Your task to perform on an android device: read, delete, or share a saved page in the chrome app Image 0: 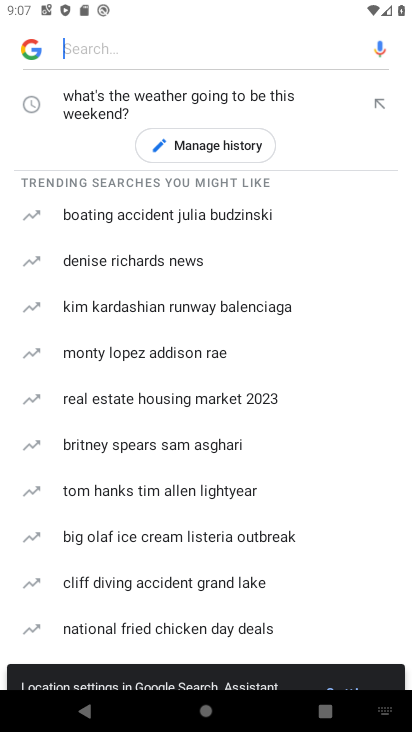
Step 0: press home button
Your task to perform on an android device: read, delete, or share a saved page in the chrome app Image 1: 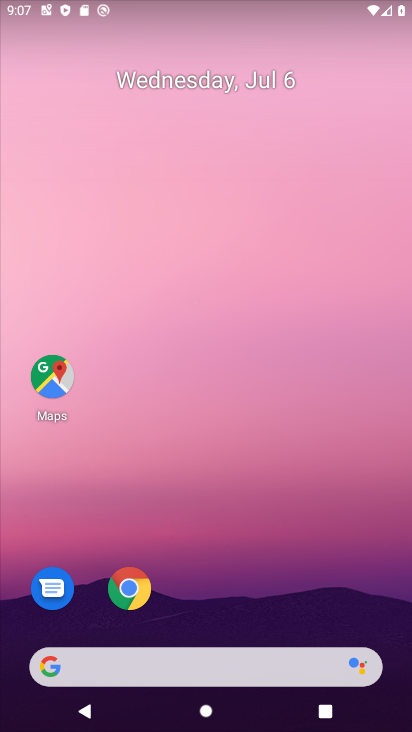
Step 1: click (133, 589)
Your task to perform on an android device: read, delete, or share a saved page in the chrome app Image 2: 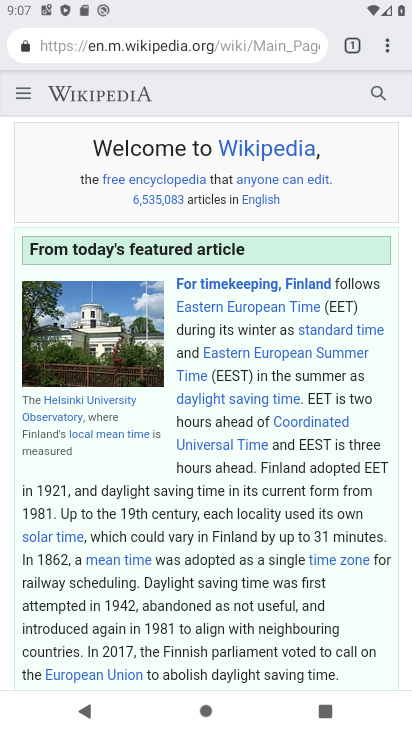
Step 2: click (383, 48)
Your task to perform on an android device: read, delete, or share a saved page in the chrome app Image 3: 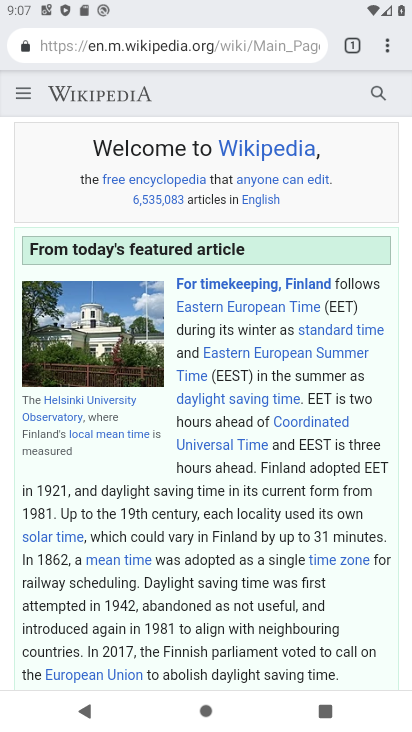
Step 3: click (385, 54)
Your task to perform on an android device: read, delete, or share a saved page in the chrome app Image 4: 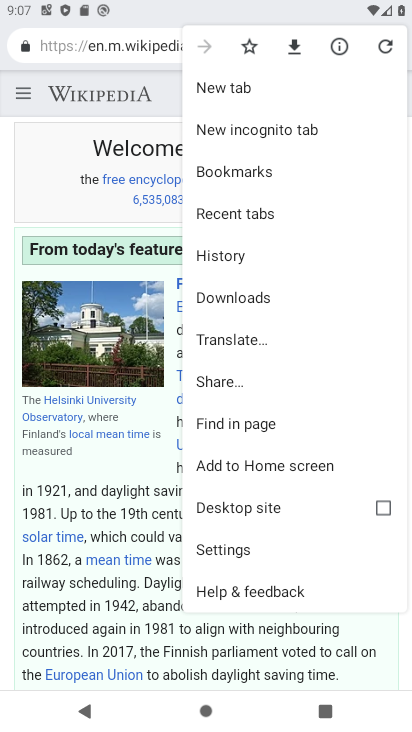
Step 4: click (241, 296)
Your task to perform on an android device: read, delete, or share a saved page in the chrome app Image 5: 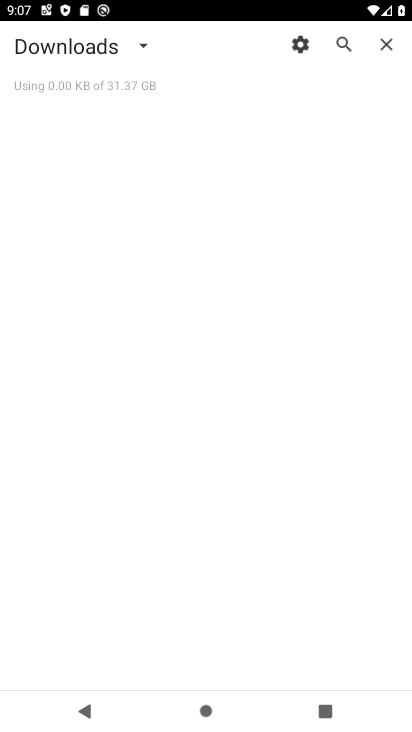
Step 5: click (145, 46)
Your task to perform on an android device: read, delete, or share a saved page in the chrome app Image 6: 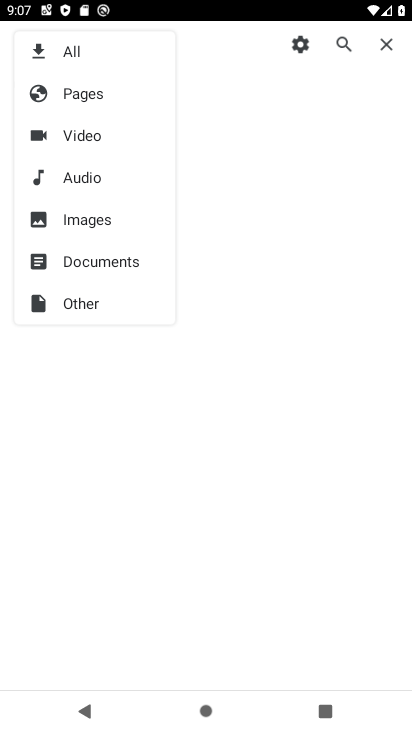
Step 6: click (101, 91)
Your task to perform on an android device: read, delete, or share a saved page in the chrome app Image 7: 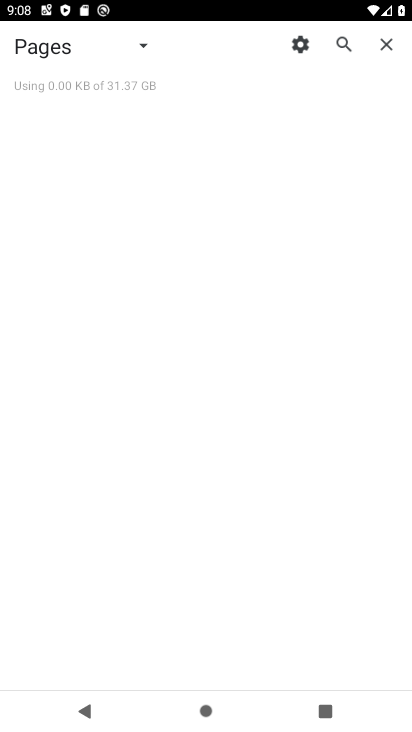
Step 7: task complete